Your task to perform on an android device: turn notification dots off Image 0: 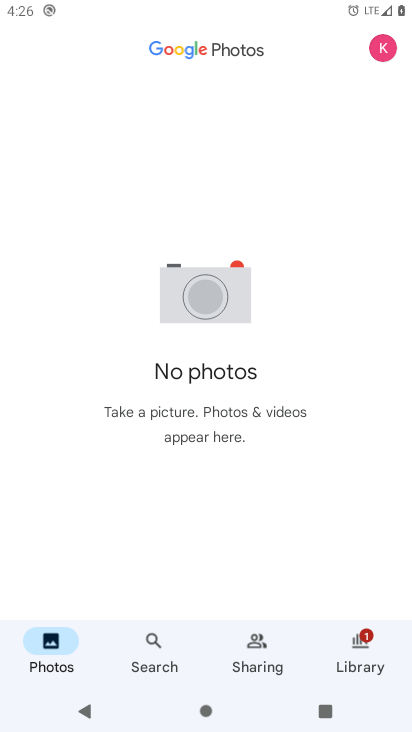
Step 0: drag from (316, 551) to (285, 205)
Your task to perform on an android device: turn notification dots off Image 1: 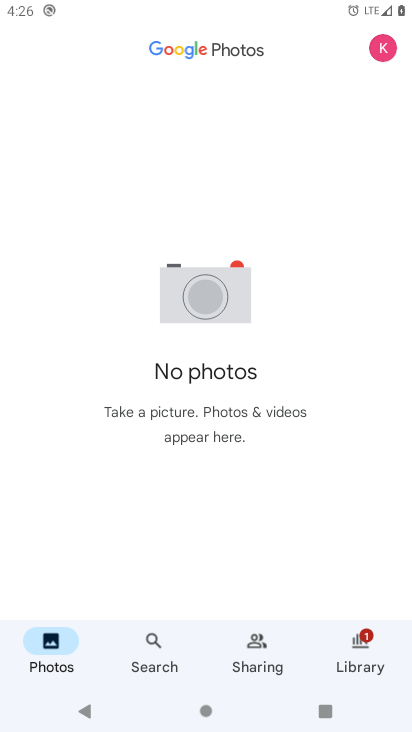
Step 1: press home button
Your task to perform on an android device: turn notification dots off Image 2: 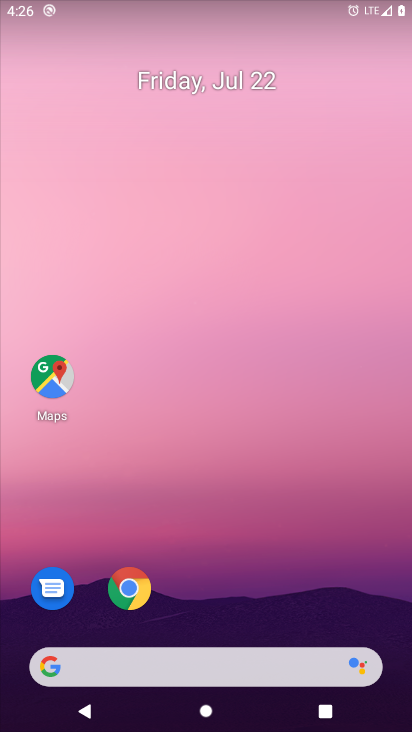
Step 2: drag from (249, 607) to (312, 124)
Your task to perform on an android device: turn notification dots off Image 3: 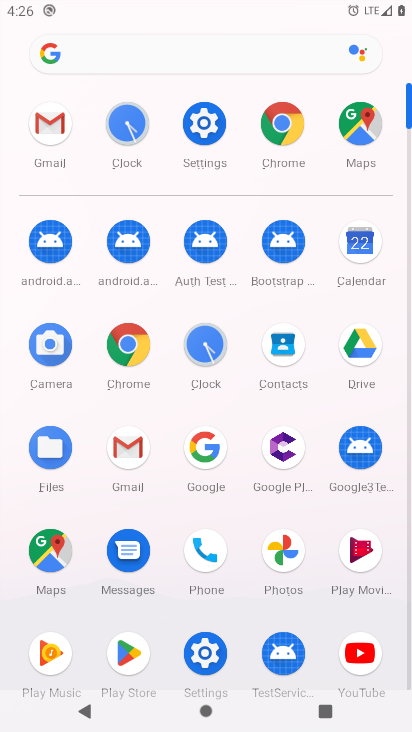
Step 3: click (196, 631)
Your task to perform on an android device: turn notification dots off Image 4: 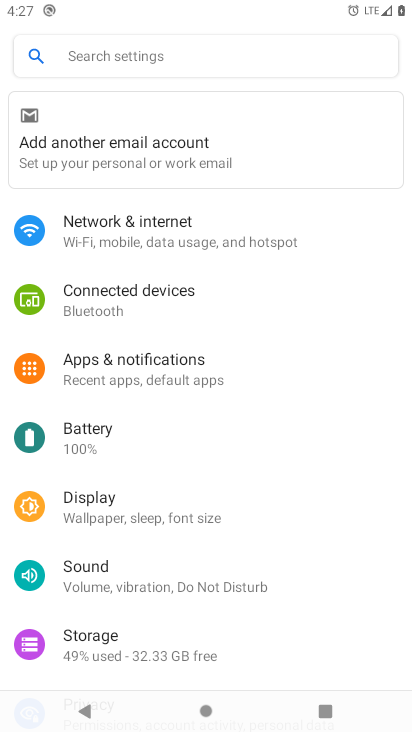
Step 4: drag from (280, 594) to (254, 353)
Your task to perform on an android device: turn notification dots off Image 5: 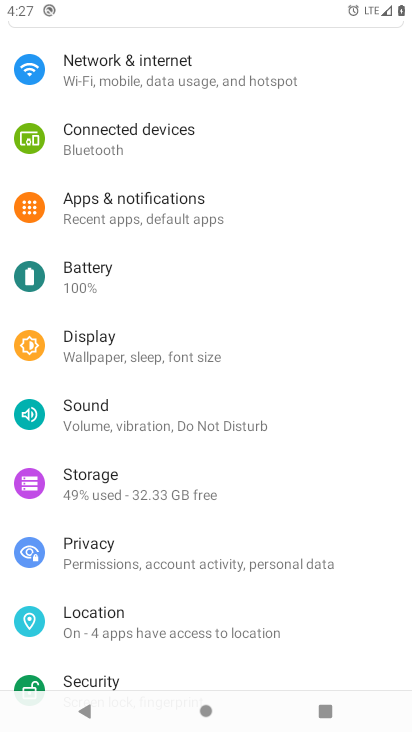
Step 5: click (163, 210)
Your task to perform on an android device: turn notification dots off Image 6: 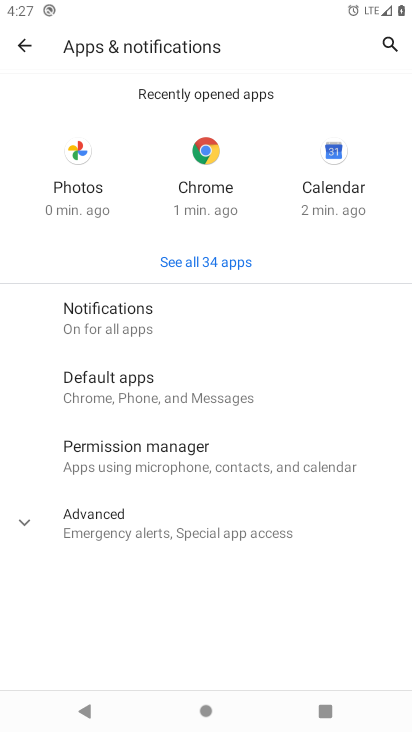
Step 6: click (107, 307)
Your task to perform on an android device: turn notification dots off Image 7: 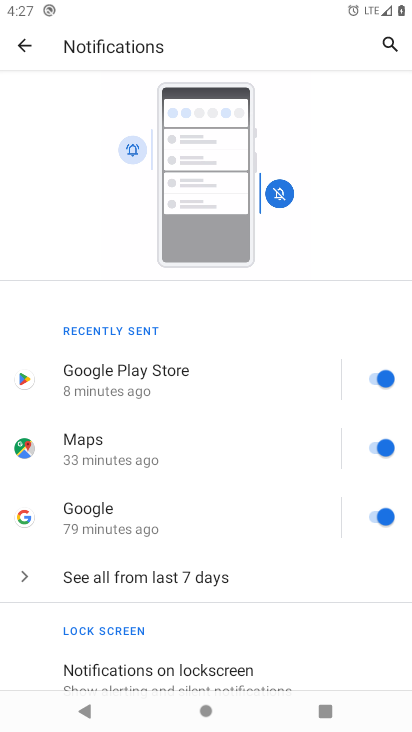
Step 7: drag from (340, 584) to (275, 210)
Your task to perform on an android device: turn notification dots off Image 8: 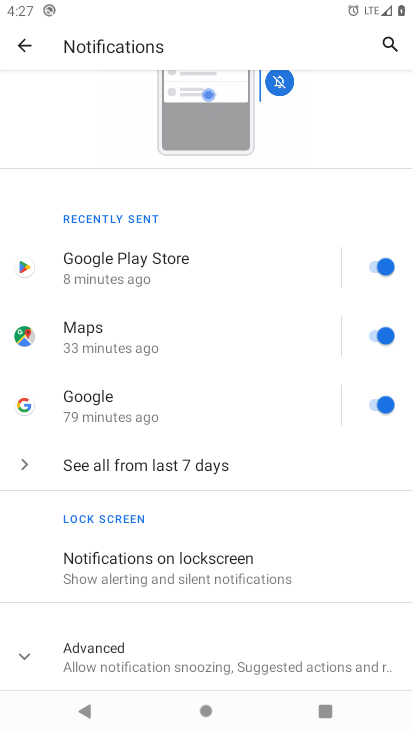
Step 8: click (154, 658)
Your task to perform on an android device: turn notification dots off Image 9: 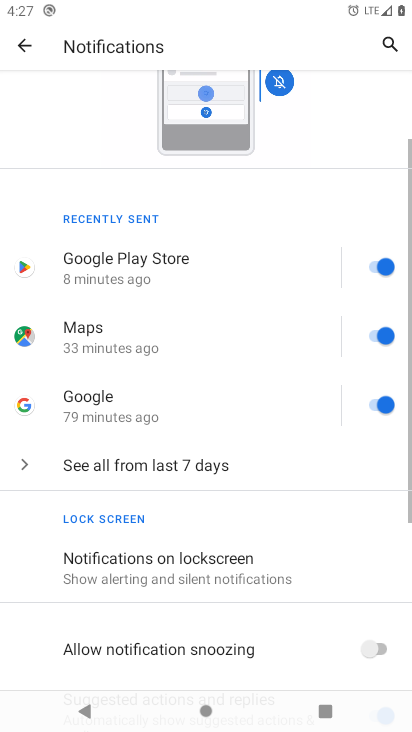
Step 9: task complete